Your task to perform on an android device: Go to display settings Image 0: 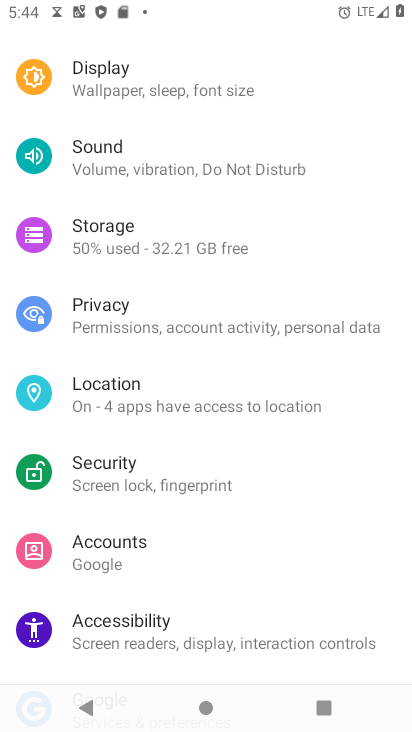
Step 0: drag from (125, 269) to (130, 515)
Your task to perform on an android device: Go to display settings Image 1: 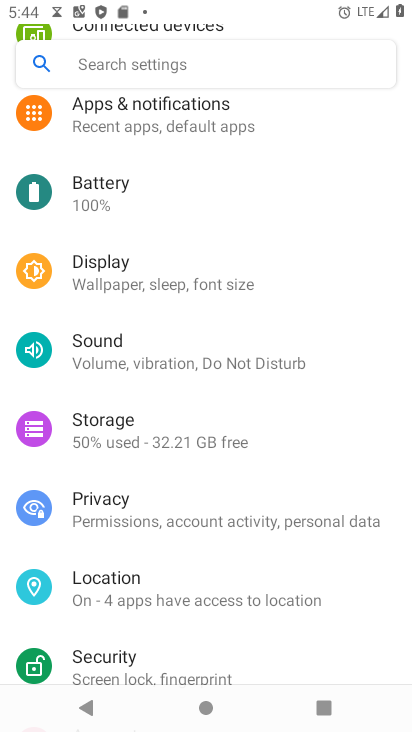
Step 1: click (100, 284)
Your task to perform on an android device: Go to display settings Image 2: 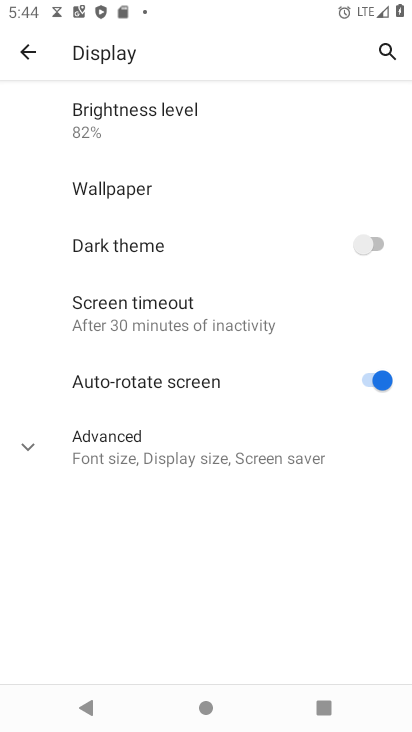
Step 2: task complete